Your task to perform on an android device: Go to internet settings Image 0: 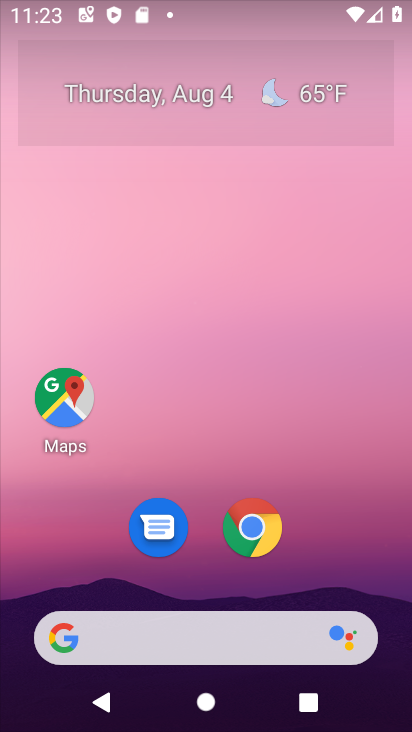
Step 0: click (228, 9)
Your task to perform on an android device: Go to internet settings Image 1: 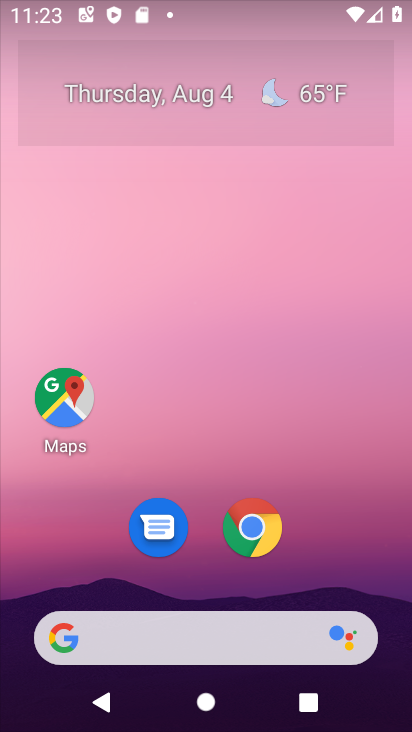
Step 1: drag from (137, 683) to (280, 174)
Your task to perform on an android device: Go to internet settings Image 2: 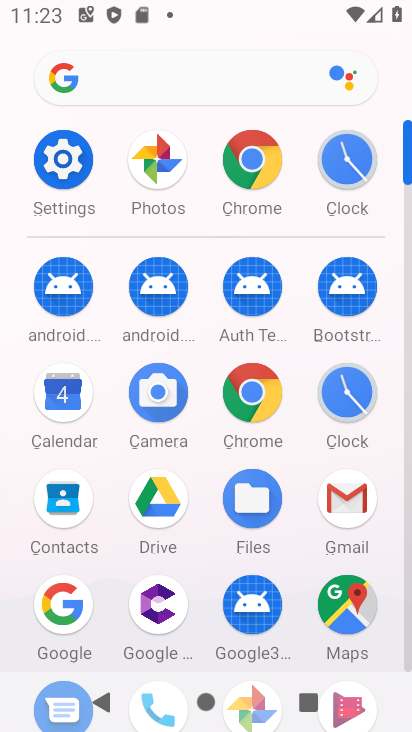
Step 2: click (87, 165)
Your task to perform on an android device: Go to internet settings Image 3: 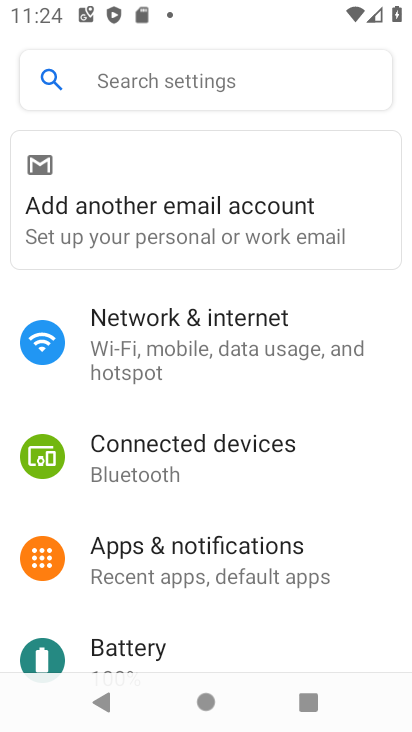
Step 3: click (222, 341)
Your task to perform on an android device: Go to internet settings Image 4: 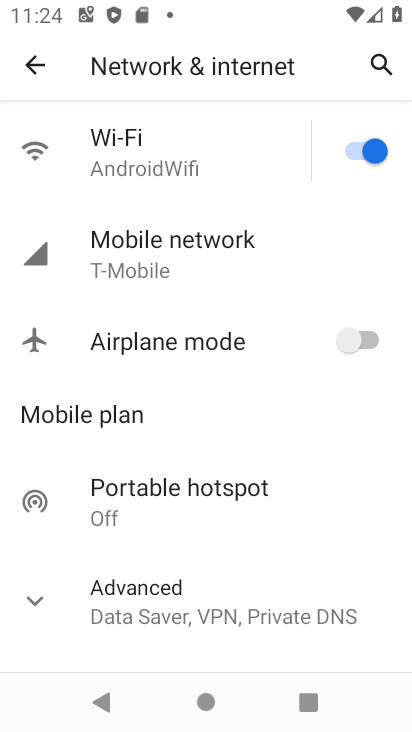
Step 4: task complete